Your task to perform on an android device: see creations saved in the google photos Image 0: 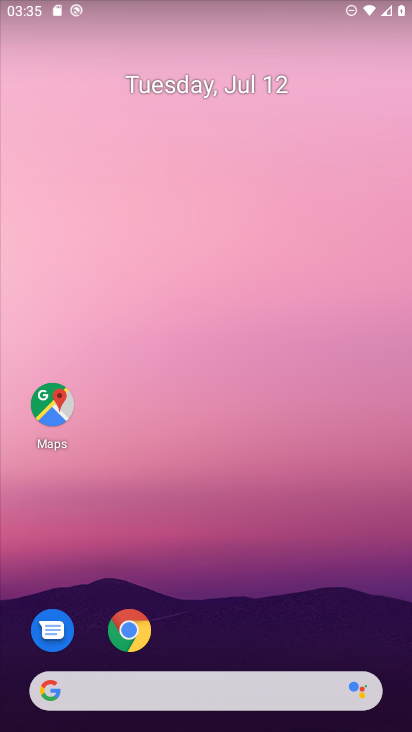
Step 0: drag from (334, 629) to (285, 202)
Your task to perform on an android device: see creations saved in the google photos Image 1: 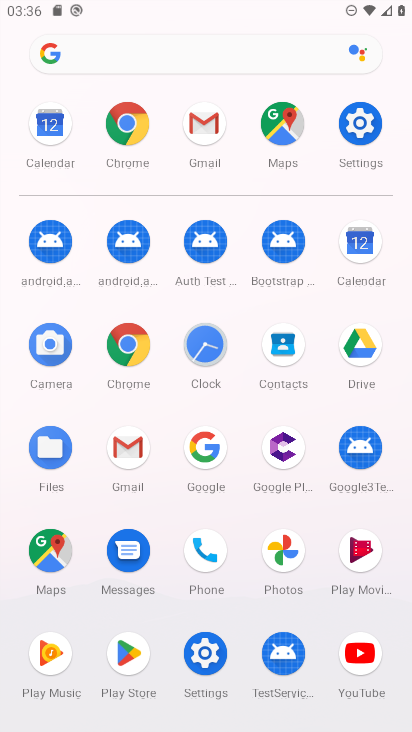
Step 1: click (277, 551)
Your task to perform on an android device: see creations saved in the google photos Image 2: 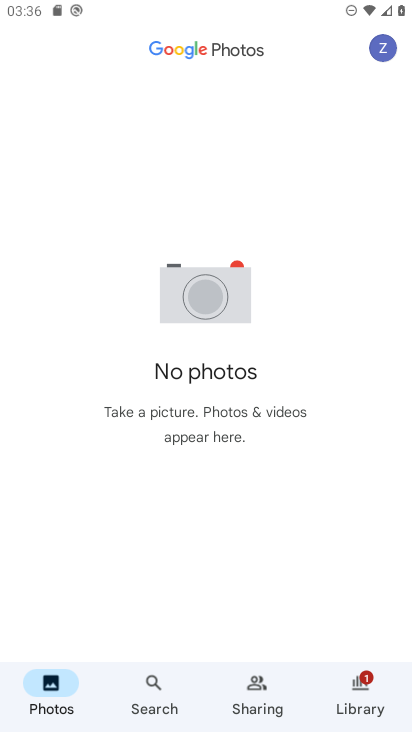
Step 2: task complete